Your task to perform on an android device: find photos in the google photos app Image 0: 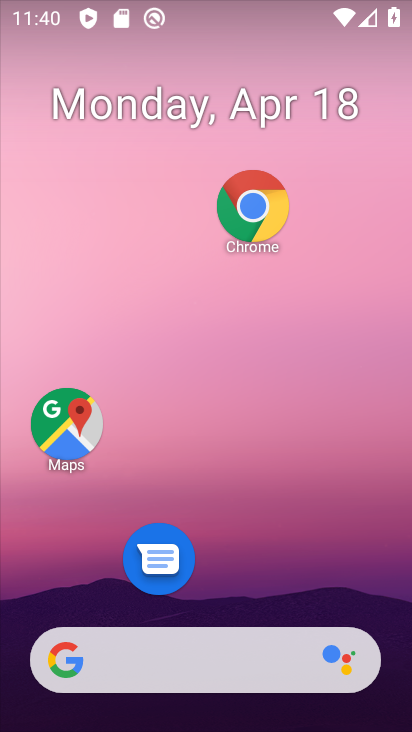
Step 0: drag from (286, 658) to (366, 18)
Your task to perform on an android device: find photos in the google photos app Image 1: 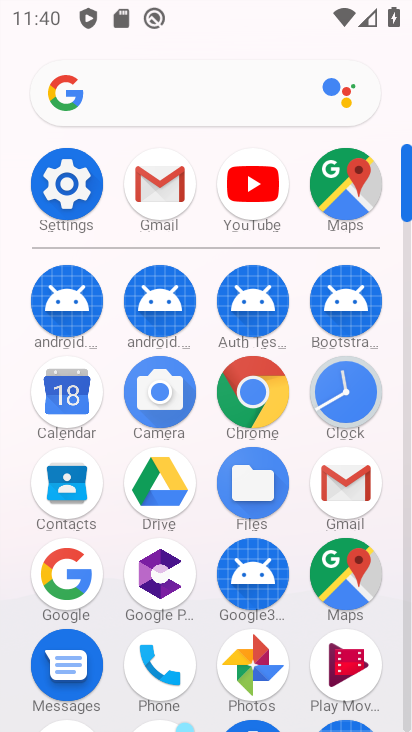
Step 1: click (249, 661)
Your task to perform on an android device: find photos in the google photos app Image 2: 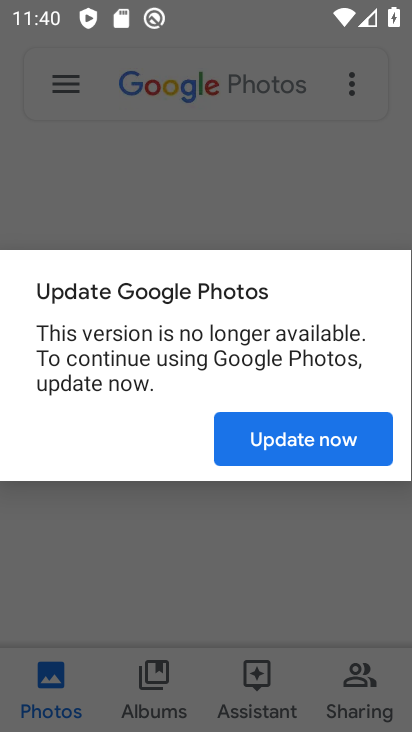
Step 2: click (284, 439)
Your task to perform on an android device: find photos in the google photos app Image 3: 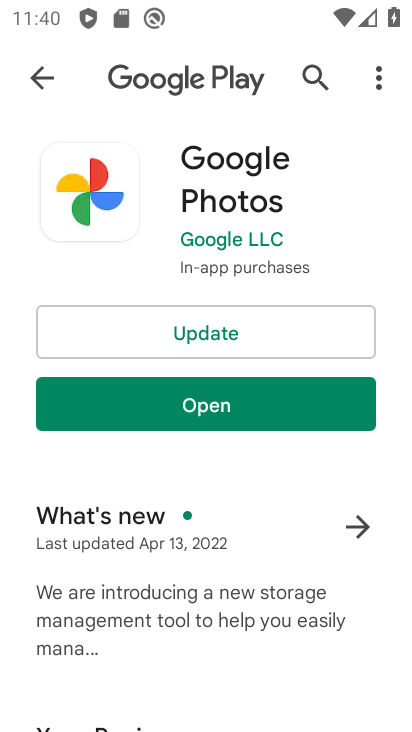
Step 3: click (207, 336)
Your task to perform on an android device: find photos in the google photos app Image 4: 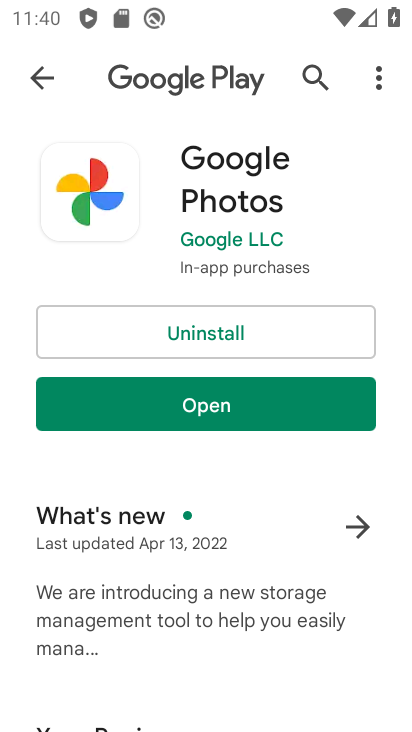
Step 4: click (210, 406)
Your task to perform on an android device: find photos in the google photos app Image 5: 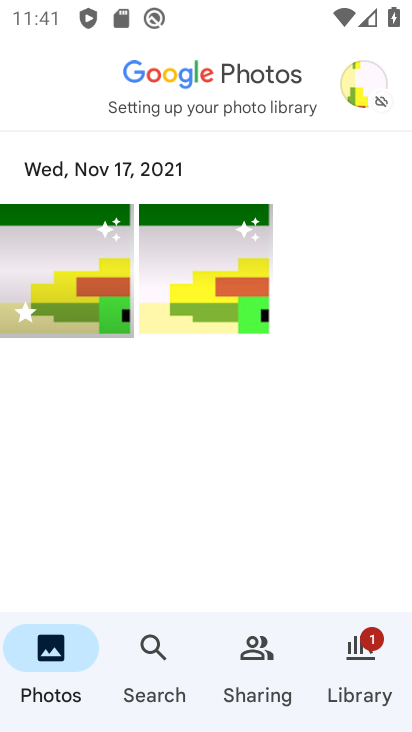
Step 5: click (208, 273)
Your task to perform on an android device: find photos in the google photos app Image 6: 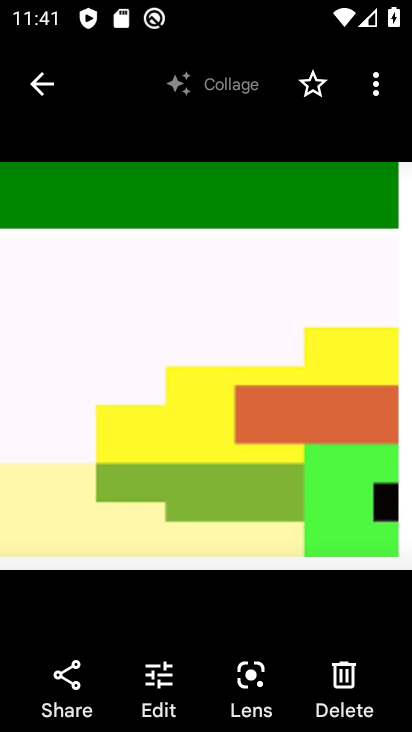
Step 6: task complete